Your task to perform on an android device: Open Youtube and go to "Your channel" Image 0: 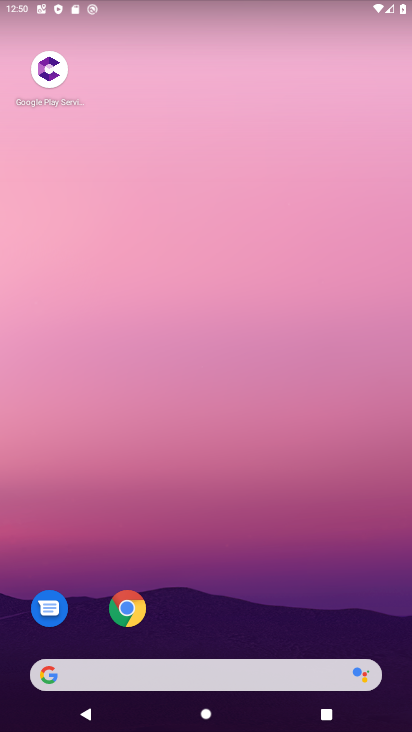
Step 0: drag from (254, 625) to (254, 194)
Your task to perform on an android device: Open Youtube and go to "Your channel" Image 1: 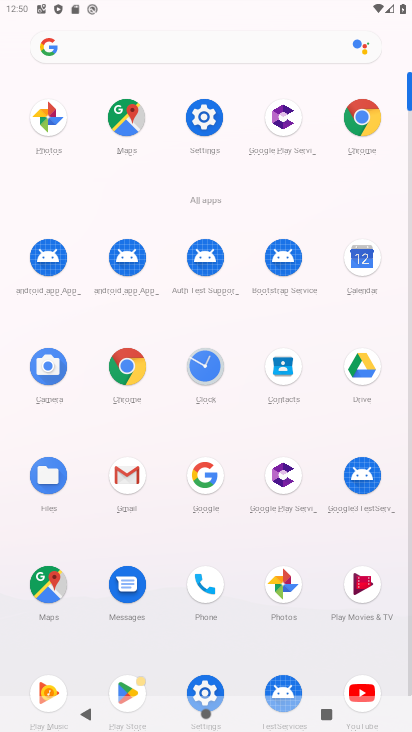
Step 1: drag from (349, 609) to (334, 345)
Your task to perform on an android device: Open Youtube and go to "Your channel" Image 2: 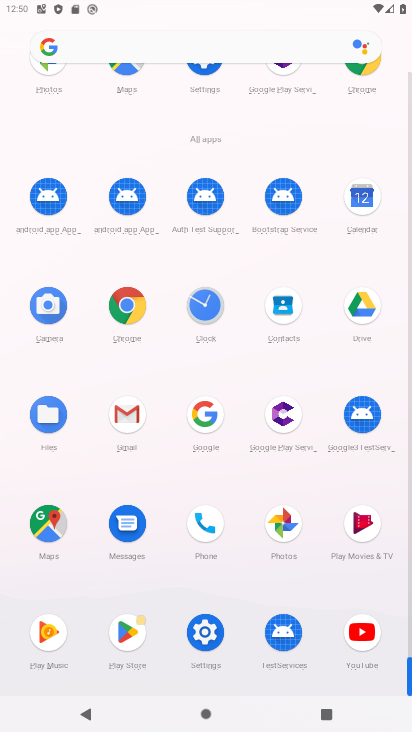
Step 2: click (349, 629)
Your task to perform on an android device: Open Youtube and go to "Your channel" Image 3: 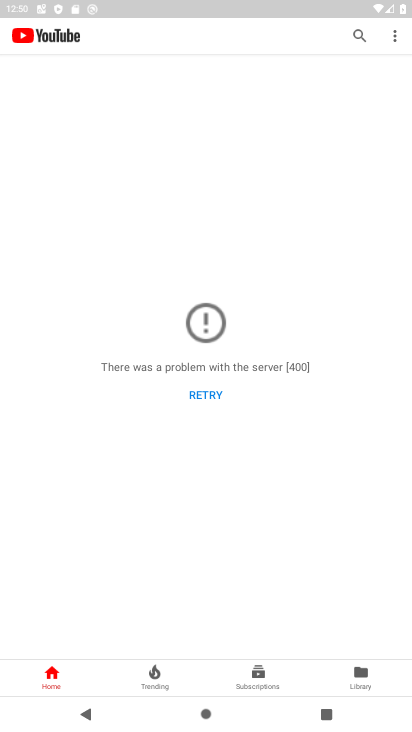
Step 3: click (356, 36)
Your task to perform on an android device: Open Youtube and go to "Your channel" Image 4: 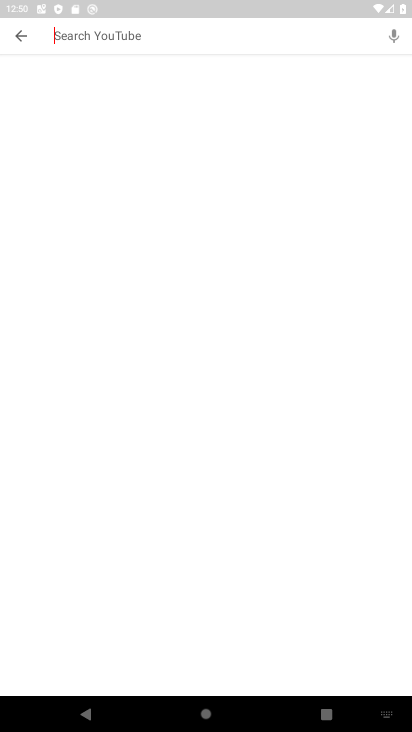
Step 4: click (111, 22)
Your task to perform on an android device: Open Youtube and go to "Your channel" Image 5: 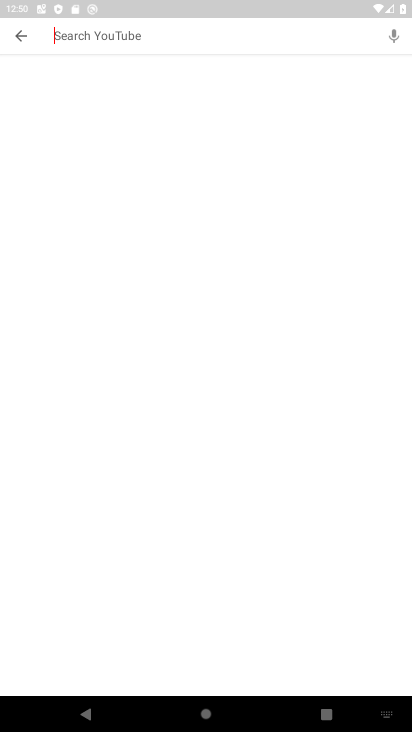
Step 5: type "delhi "
Your task to perform on an android device: Open Youtube and go to "Your channel" Image 6: 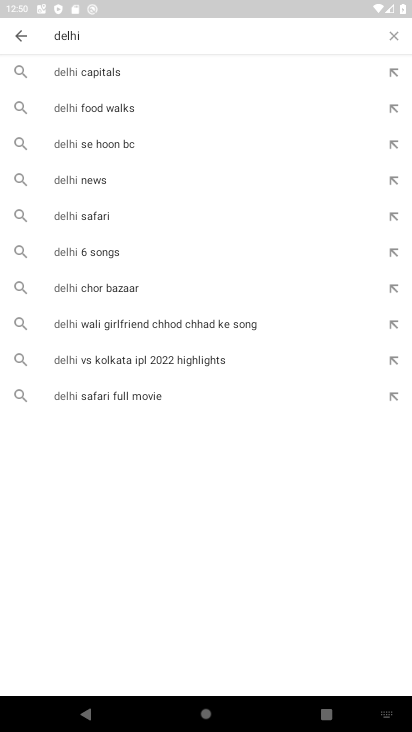
Step 6: click (78, 76)
Your task to perform on an android device: Open Youtube and go to "Your channel" Image 7: 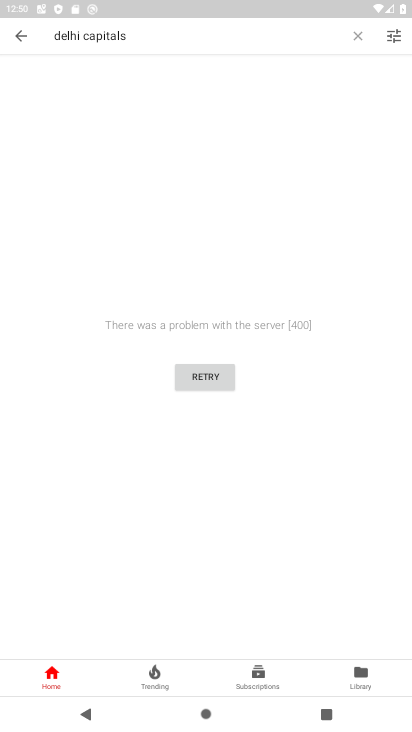
Step 7: task complete